Your task to perform on an android device: Search for Mexican restaurants on Maps Image 0: 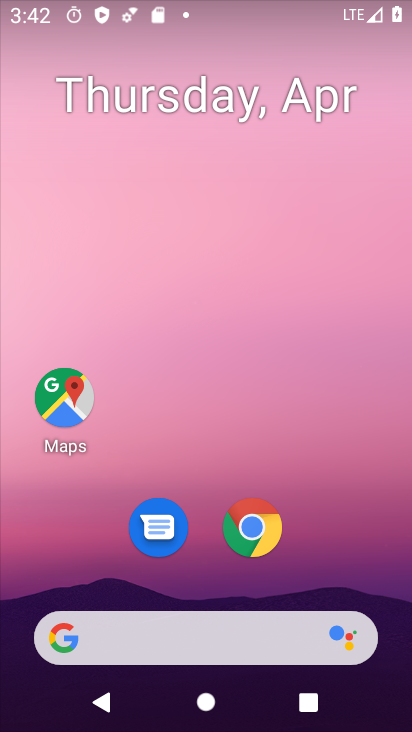
Step 0: drag from (349, 541) to (352, 100)
Your task to perform on an android device: Search for Mexican restaurants on Maps Image 1: 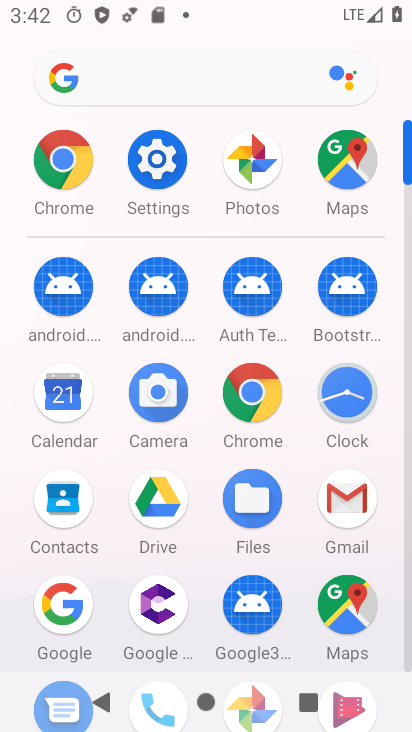
Step 1: click (346, 164)
Your task to perform on an android device: Search for Mexican restaurants on Maps Image 2: 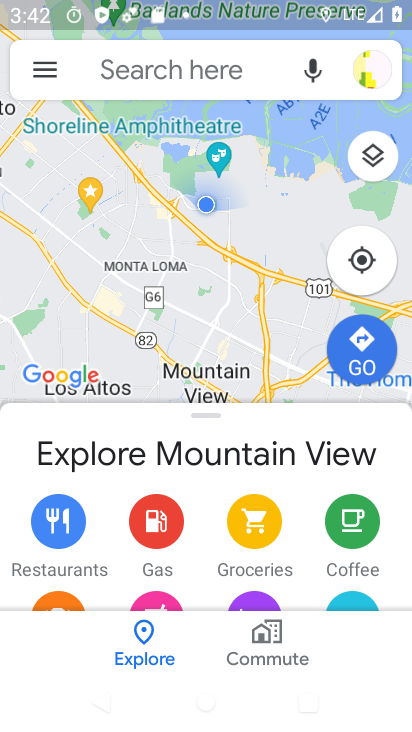
Step 2: click (195, 84)
Your task to perform on an android device: Search for Mexican restaurants on Maps Image 3: 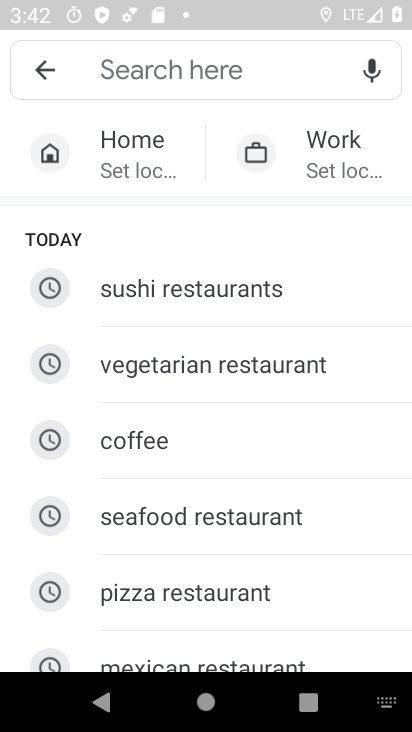
Step 3: type "Mexican restaurants"
Your task to perform on an android device: Search for Mexican restaurants on Maps Image 4: 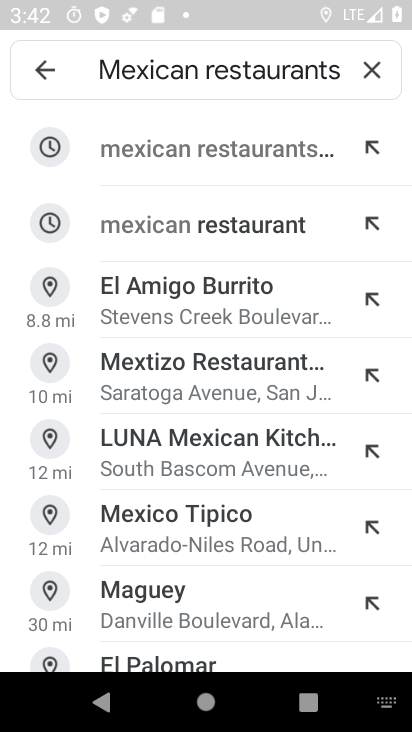
Step 4: click (283, 156)
Your task to perform on an android device: Search for Mexican restaurants on Maps Image 5: 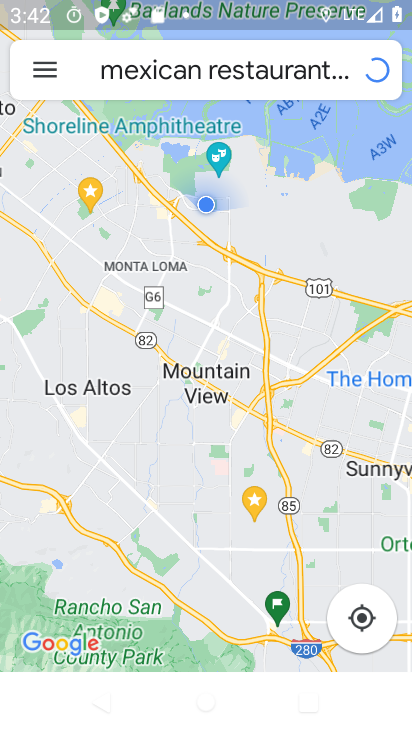
Step 5: click (292, 70)
Your task to perform on an android device: Search for Mexican restaurants on Maps Image 6: 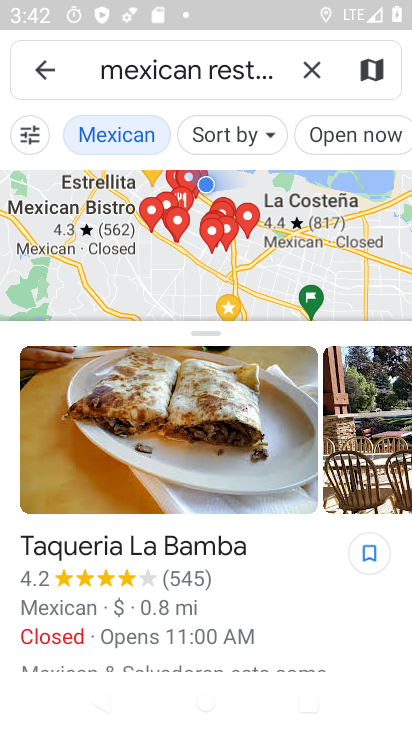
Step 6: type "Mexican restaurants"
Your task to perform on an android device: Search for Mexican restaurants on Maps Image 7: 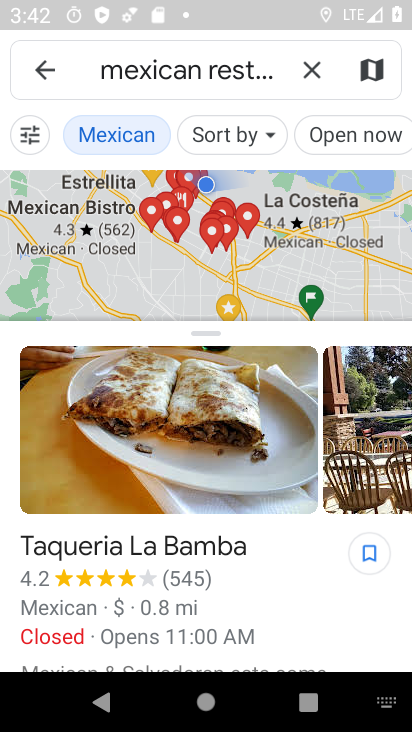
Step 7: press enter
Your task to perform on an android device: Search for Mexican restaurants on Maps Image 8: 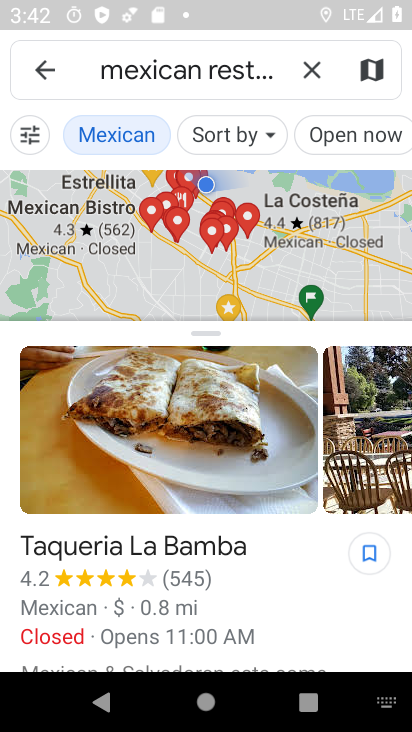
Step 8: task complete